Your task to perform on an android device: What's the weather today? Image 0: 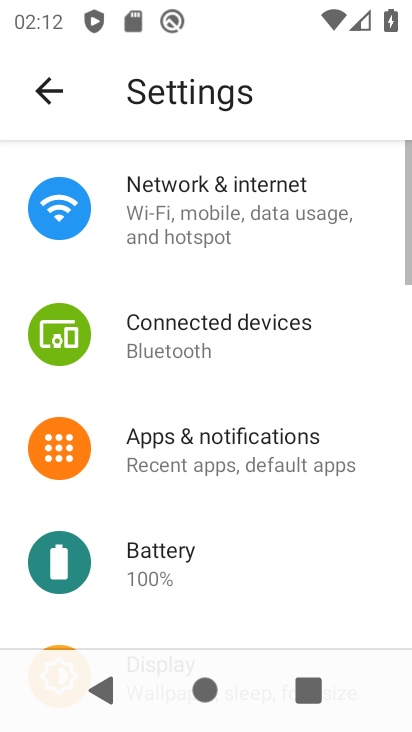
Step 0: press home button
Your task to perform on an android device: What's the weather today? Image 1: 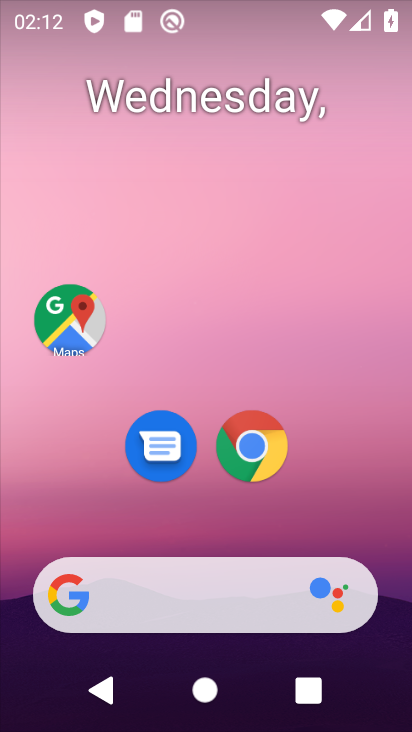
Step 1: click (260, 462)
Your task to perform on an android device: What's the weather today? Image 2: 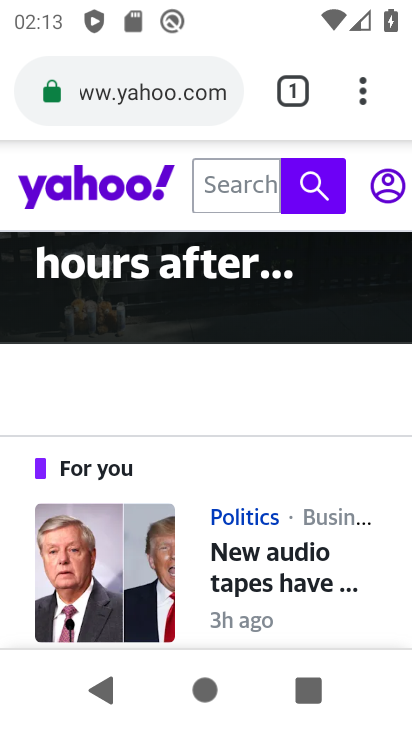
Step 2: click (299, 82)
Your task to perform on an android device: What's the weather today? Image 3: 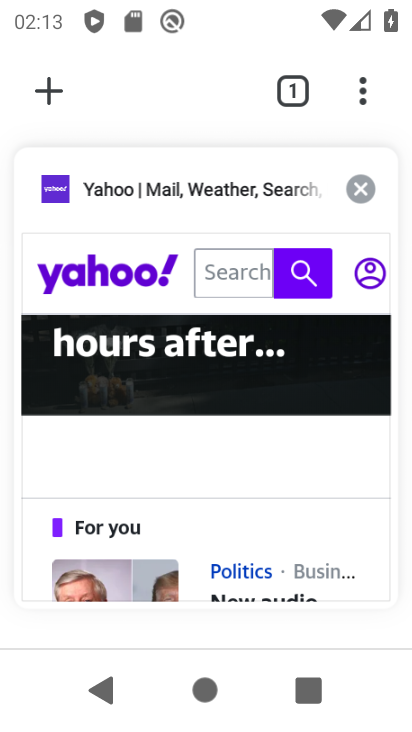
Step 3: click (52, 90)
Your task to perform on an android device: What's the weather today? Image 4: 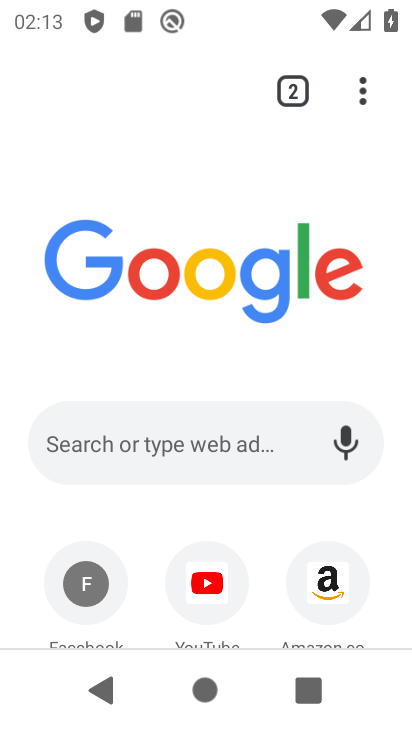
Step 4: click (116, 442)
Your task to perform on an android device: What's the weather today? Image 5: 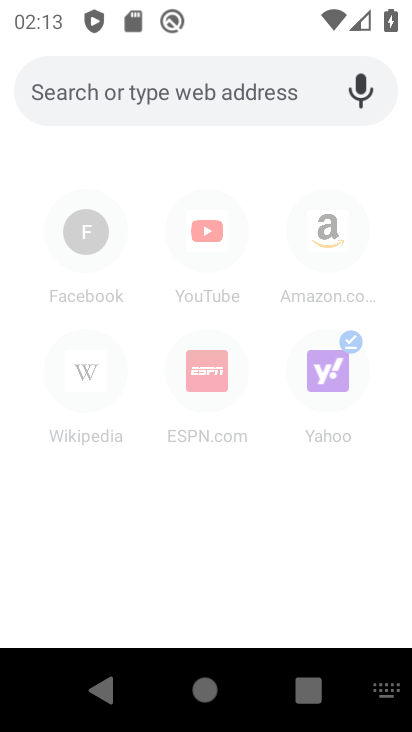
Step 5: type "what's the weather today?"
Your task to perform on an android device: What's the weather today? Image 6: 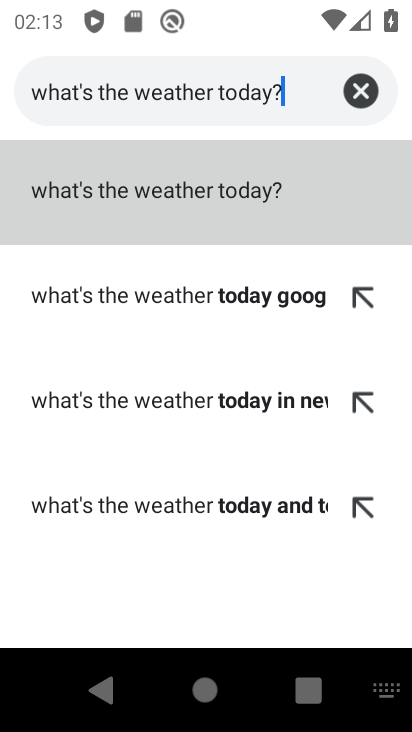
Step 6: click (241, 188)
Your task to perform on an android device: What's the weather today? Image 7: 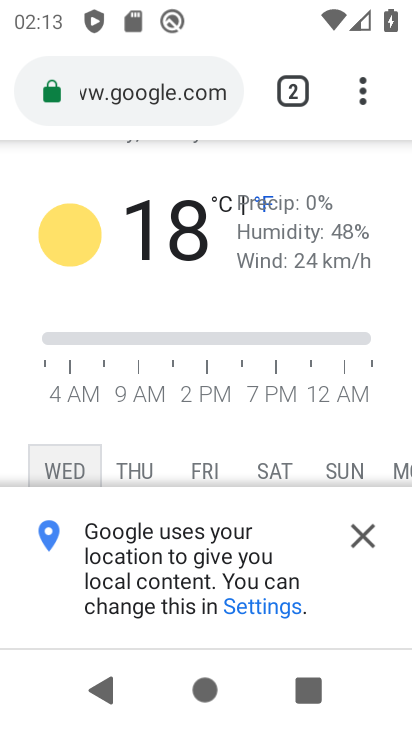
Step 7: click (363, 538)
Your task to perform on an android device: What's the weather today? Image 8: 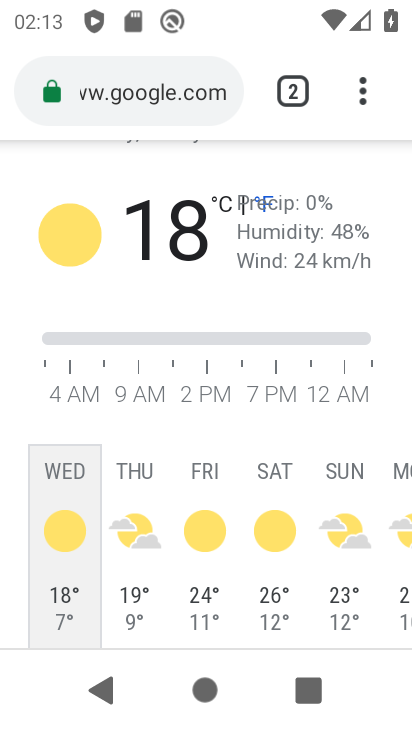
Step 8: task complete